Your task to perform on an android device: uninstall "ColorNote Notepad Notes" Image 0: 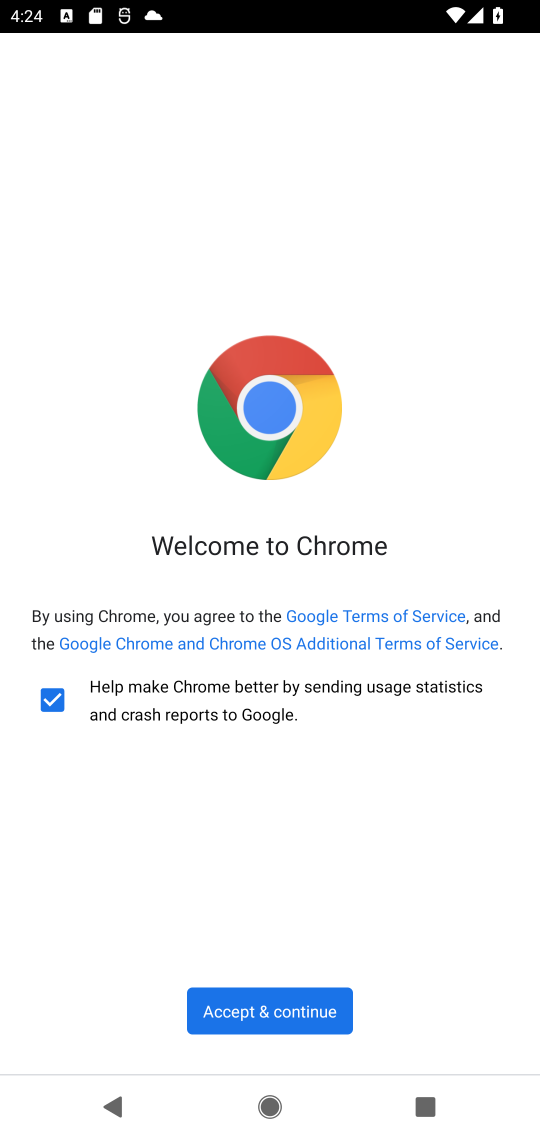
Step 0: press home button
Your task to perform on an android device: uninstall "ColorNote Notepad Notes" Image 1: 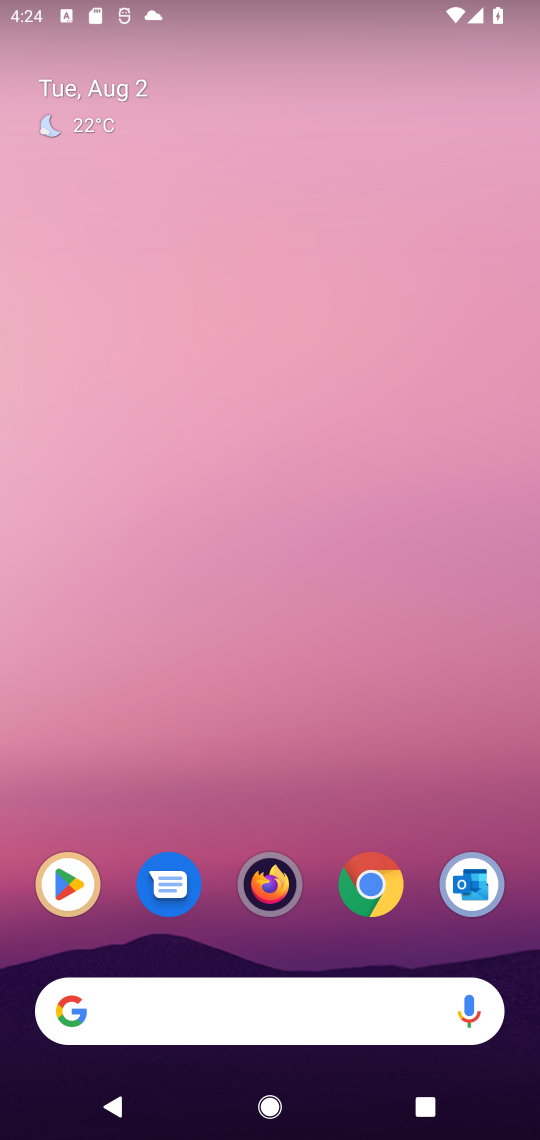
Step 1: click (52, 885)
Your task to perform on an android device: uninstall "ColorNote Notepad Notes" Image 2: 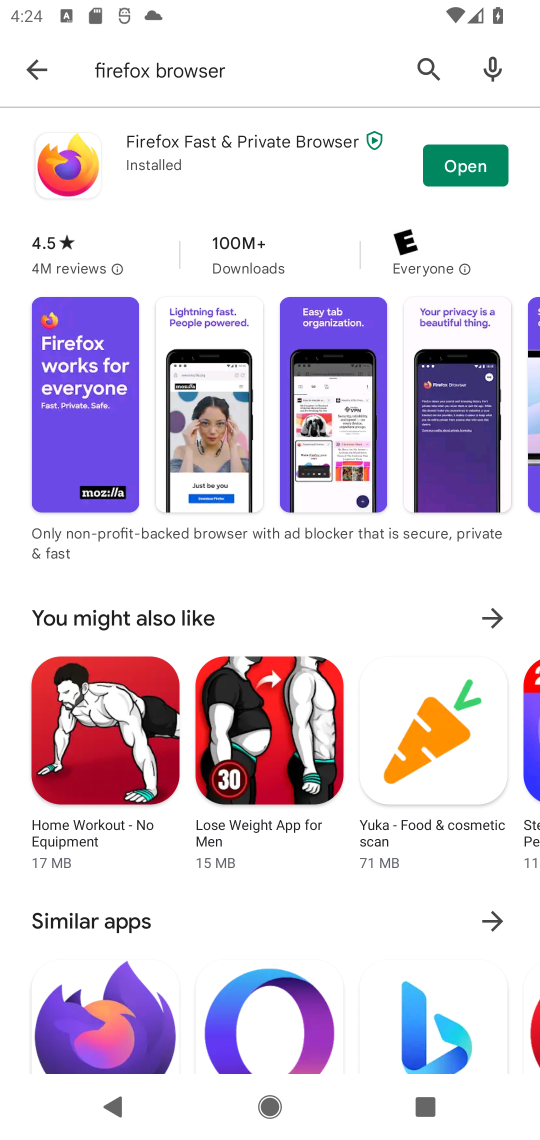
Step 2: click (40, 70)
Your task to perform on an android device: uninstall "ColorNote Notepad Notes" Image 3: 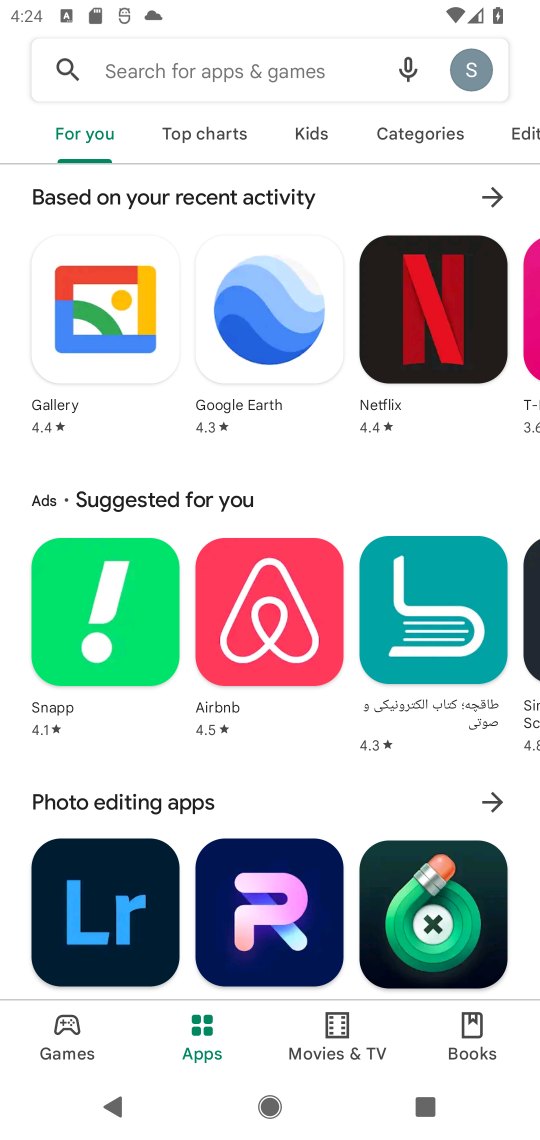
Step 3: click (218, 79)
Your task to perform on an android device: uninstall "ColorNote Notepad Notes" Image 4: 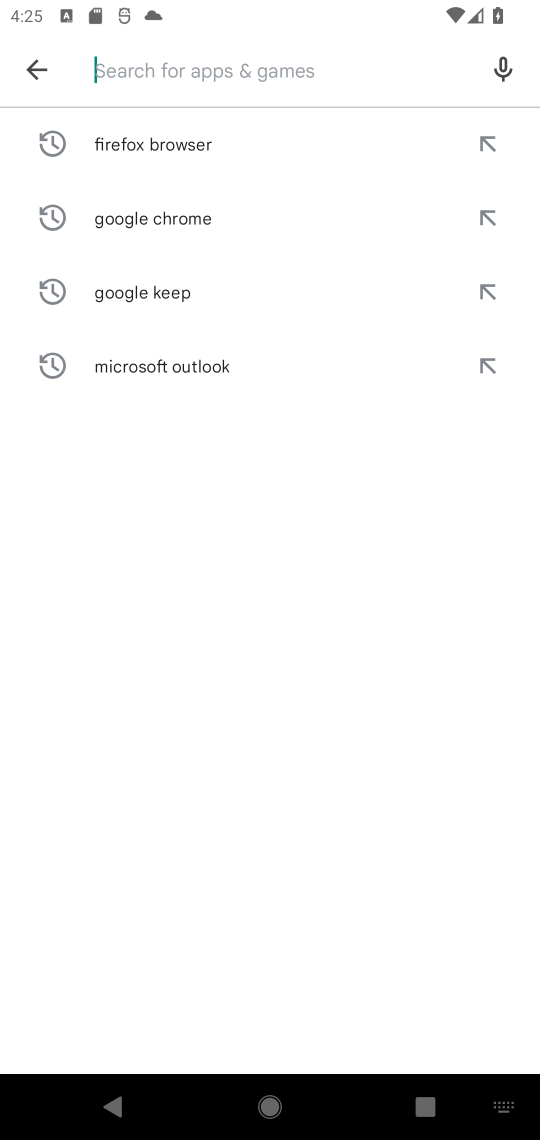
Step 4: type "ColorNote Notepad Notes"
Your task to perform on an android device: uninstall "ColorNote Notepad Notes" Image 5: 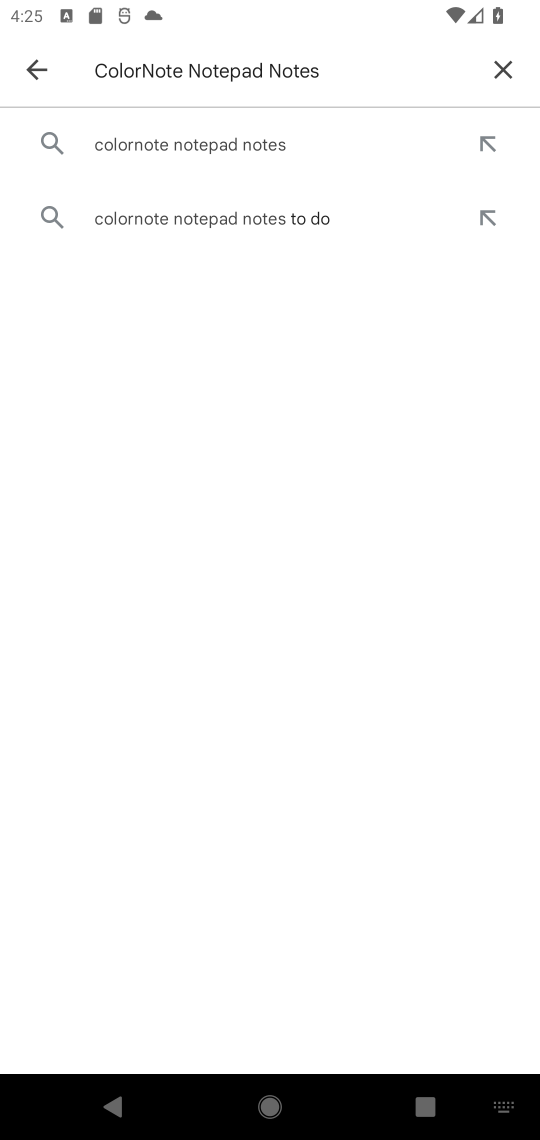
Step 5: click (141, 145)
Your task to perform on an android device: uninstall "ColorNote Notepad Notes" Image 6: 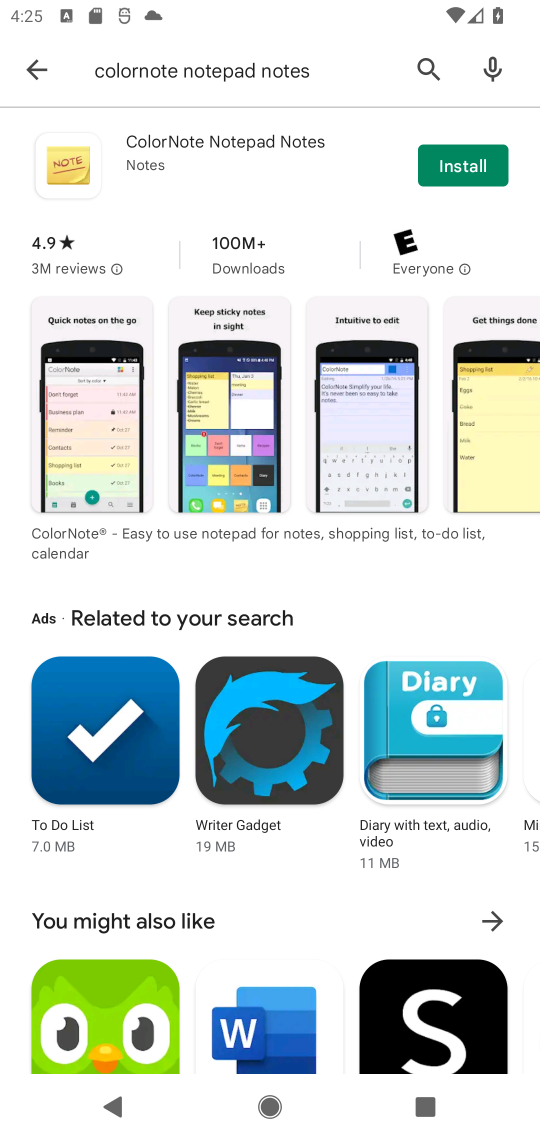
Step 6: task complete